Your task to perform on an android device: Search for alienware area 51 on walmart, select the first entry, and add it to the cart. Image 0: 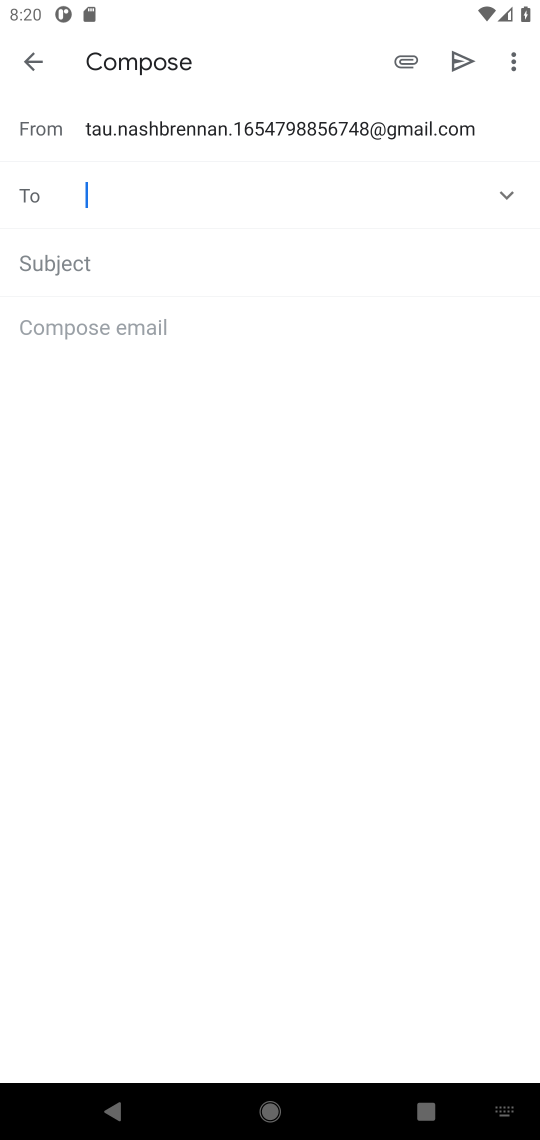
Step 0: press home button
Your task to perform on an android device: Search for alienware area 51 on walmart, select the first entry, and add it to the cart. Image 1: 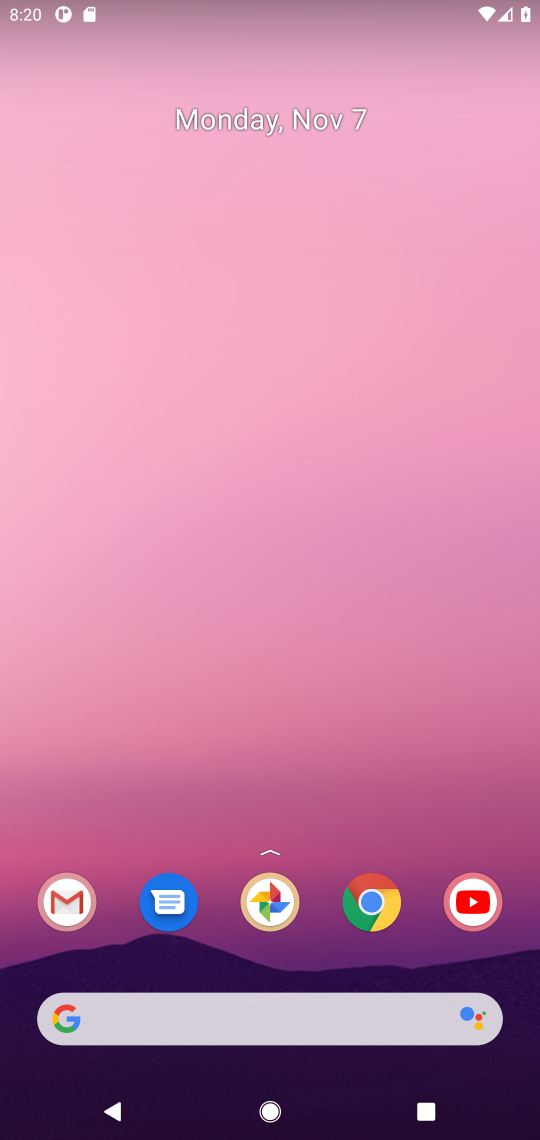
Step 1: click (370, 908)
Your task to perform on an android device: Search for alienware area 51 on walmart, select the first entry, and add it to the cart. Image 2: 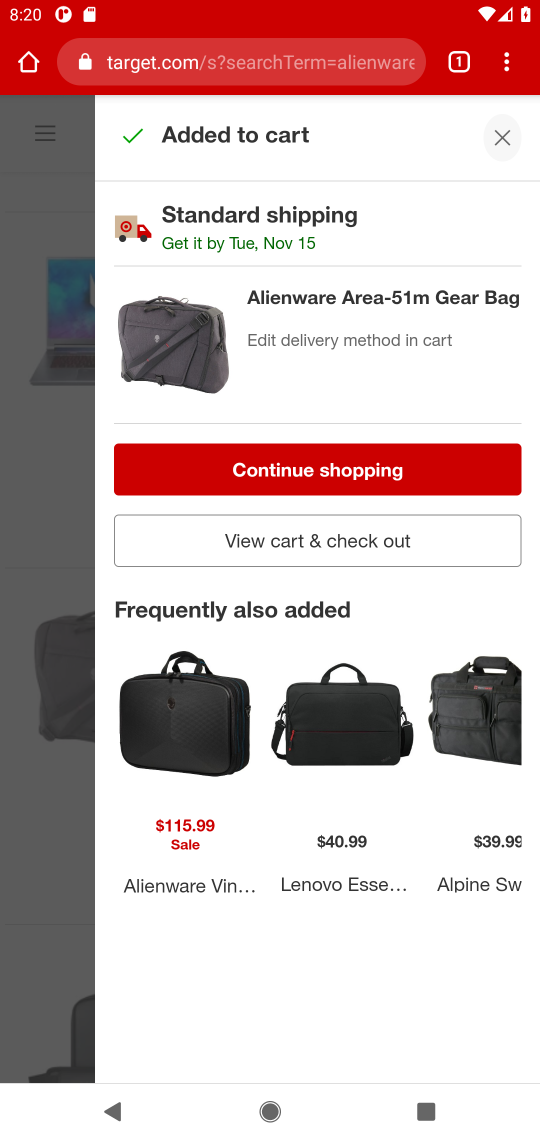
Step 2: click (225, 72)
Your task to perform on an android device: Search for alienware area 51 on walmart, select the first entry, and add it to the cart. Image 3: 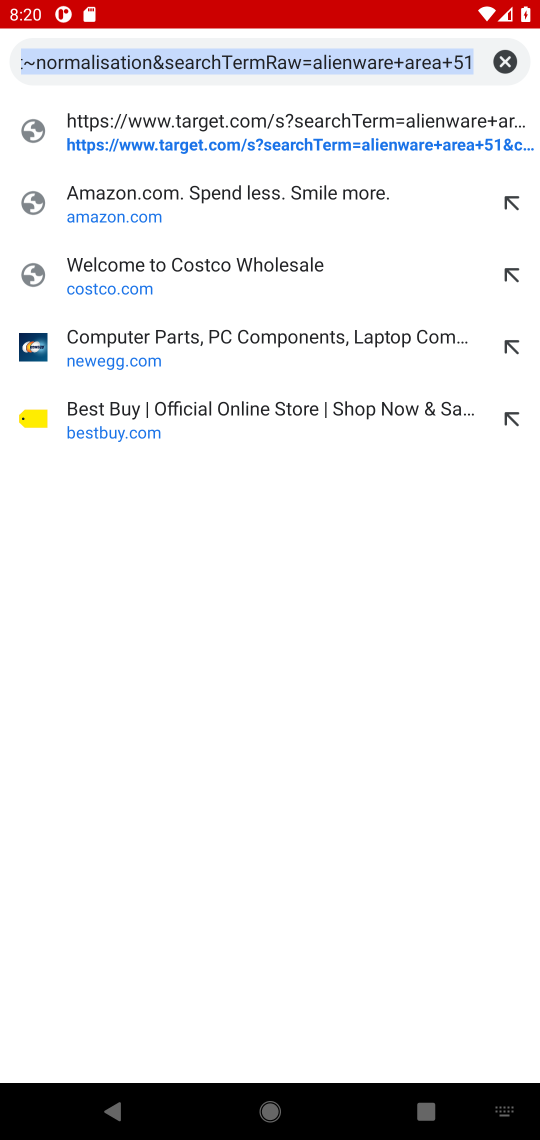
Step 3: type "walmart.com"
Your task to perform on an android device: Search for alienware area 51 on walmart, select the first entry, and add it to the cart. Image 4: 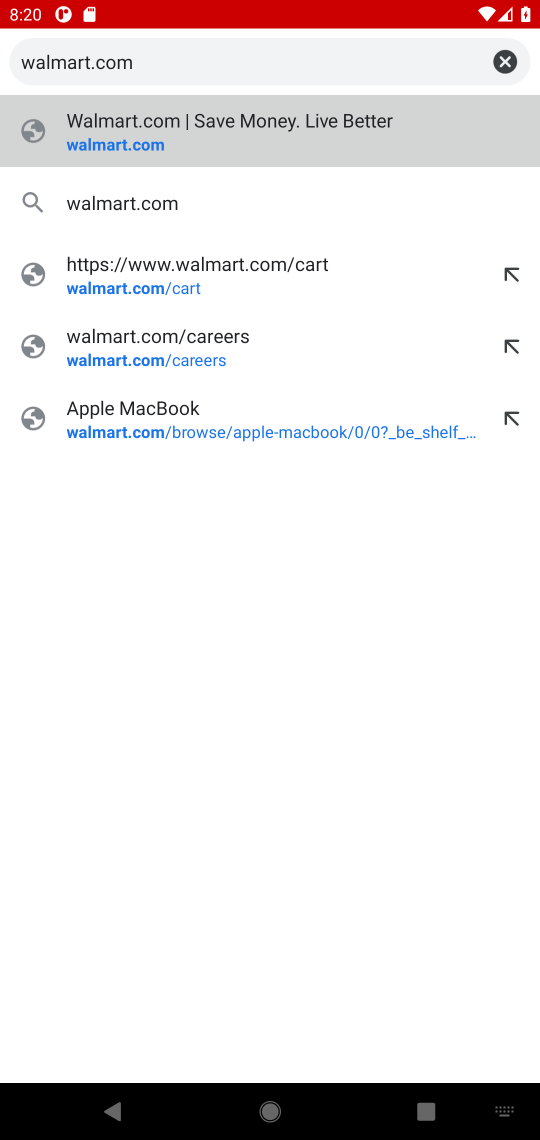
Step 4: click (128, 148)
Your task to perform on an android device: Search for alienware area 51 on walmart, select the first entry, and add it to the cart. Image 5: 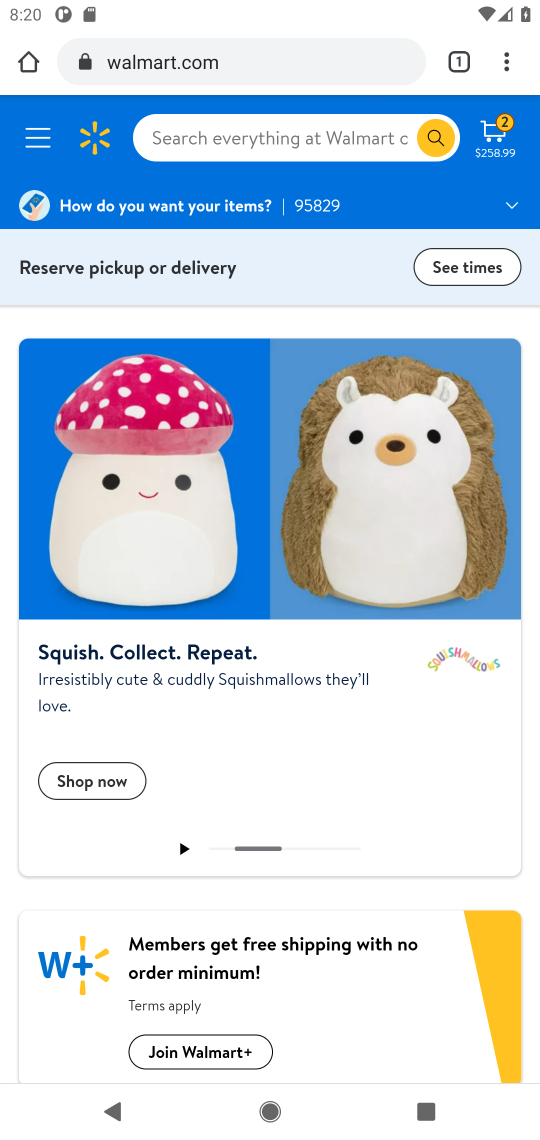
Step 5: click (283, 133)
Your task to perform on an android device: Search for alienware area 51 on walmart, select the first entry, and add it to the cart. Image 6: 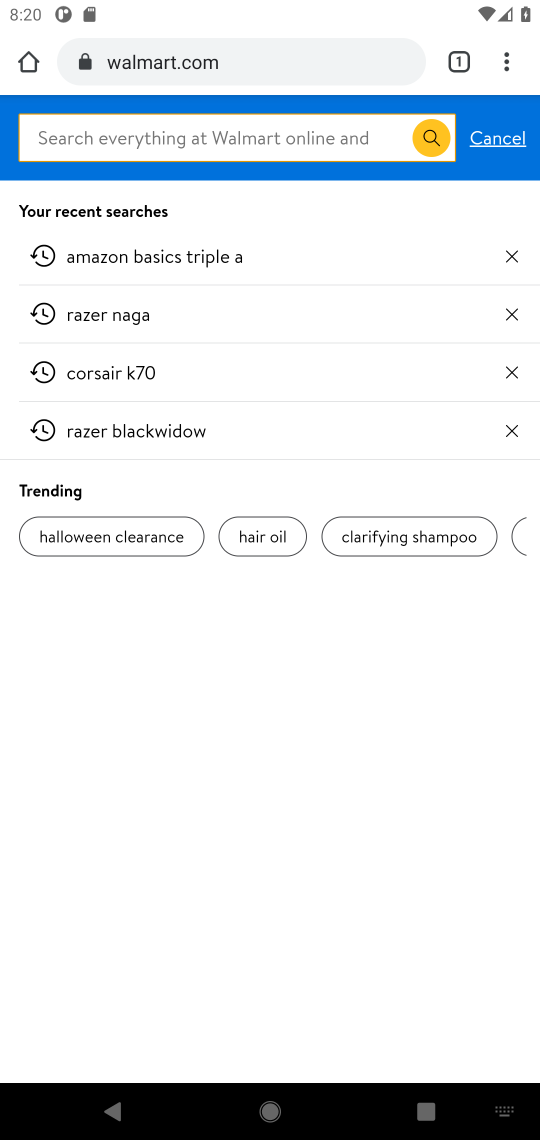
Step 6: type "alienware area 51"
Your task to perform on an android device: Search for alienware area 51 on walmart, select the first entry, and add it to the cart. Image 7: 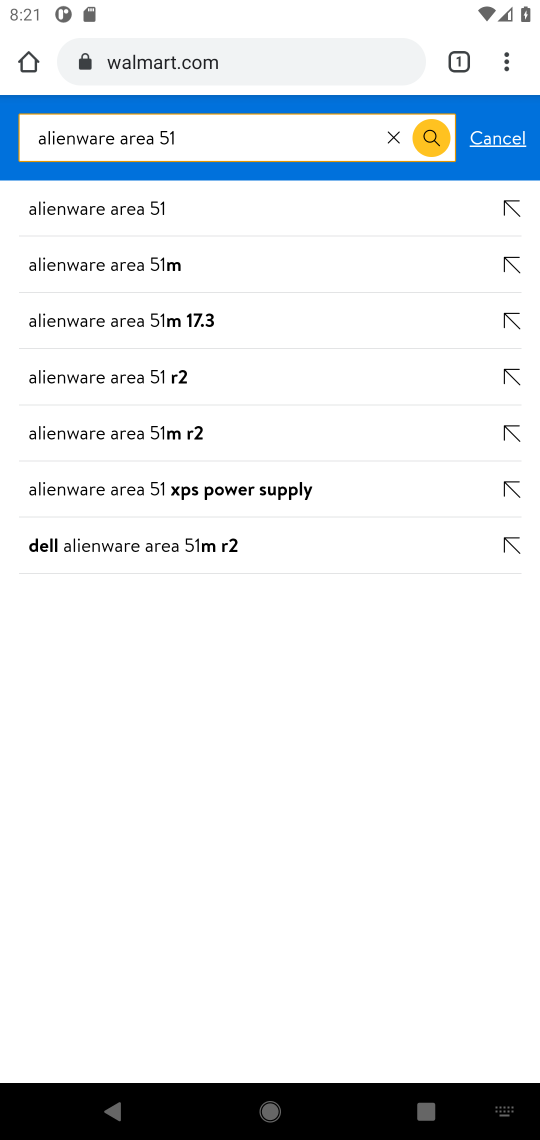
Step 7: click (143, 208)
Your task to perform on an android device: Search for alienware area 51 on walmart, select the first entry, and add it to the cart. Image 8: 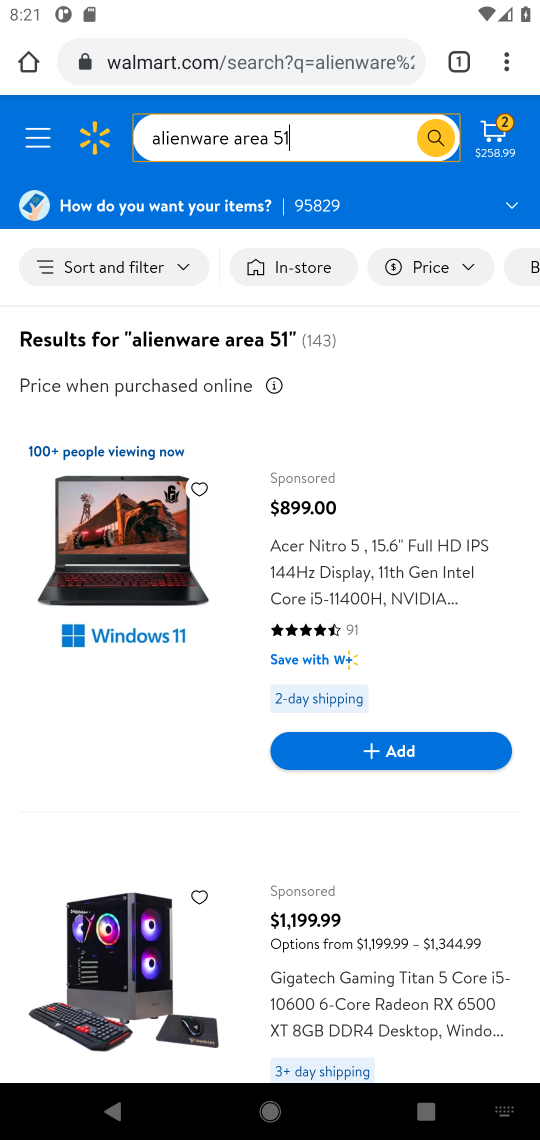
Step 8: task complete